Your task to perform on an android device: Find coffee shops on Maps Image 0: 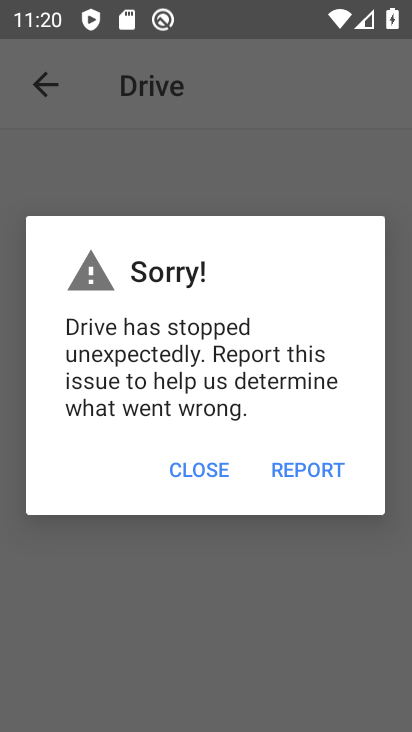
Step 0: press home button
Your task to perform on an android device: Find coffee shops on Maps Image 1: 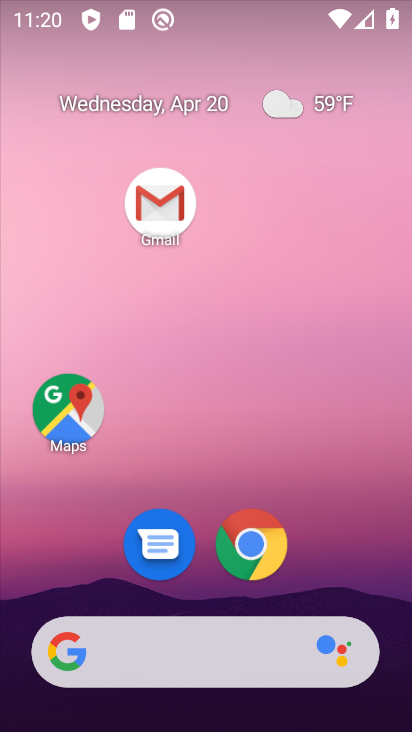
Step 1: click (78, 410)
Your task to perform on an android device: Find coffee shops on Maps Image 2: 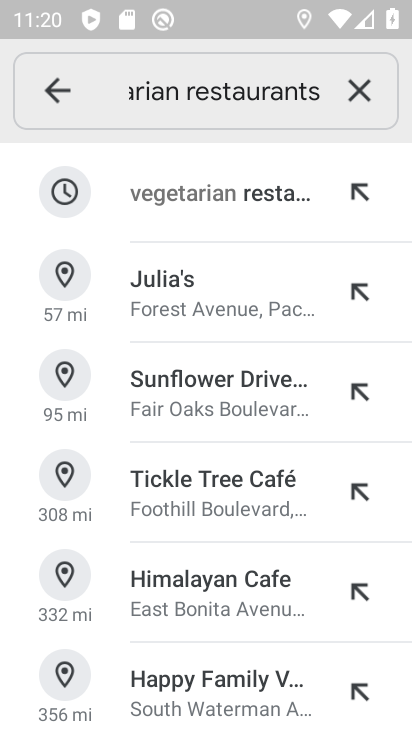
Step 2: click (371, 89)
Your task to perform on an android device: Find coffee shops on Maps Image 3: 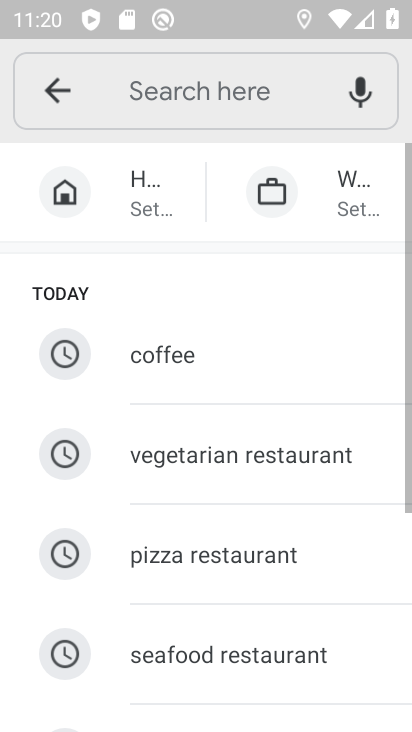
Step 3: click (171, 78)
Your task to perform on an android device: Find coffee shops on Maps Image 4: 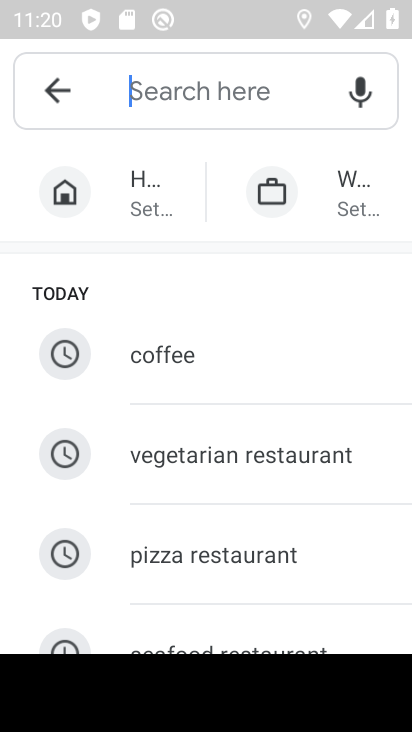
Step 4: type "coffee shops"
Your task to perform on an android device: Find coffee shops on Maps Image 5: 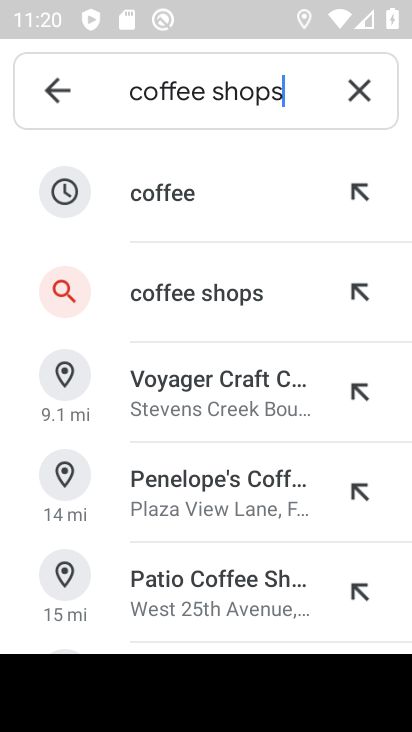
Step 5: task complete